Your task to perform on an android device: Open Google Maps Image 0: 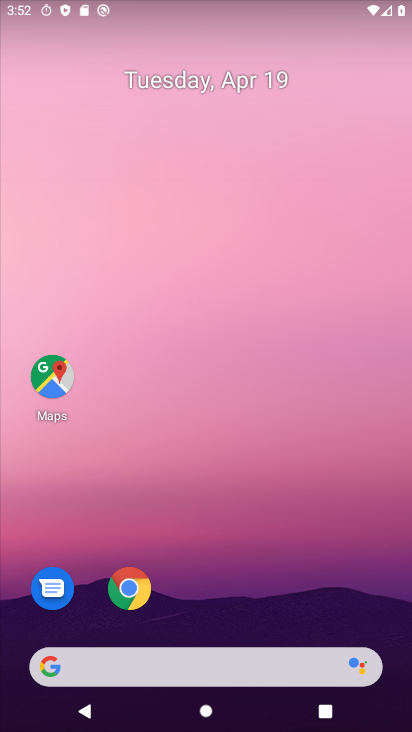
Step 0: click (48, 390)
Your task to perform on an android device: Open Google Maps Image 1: 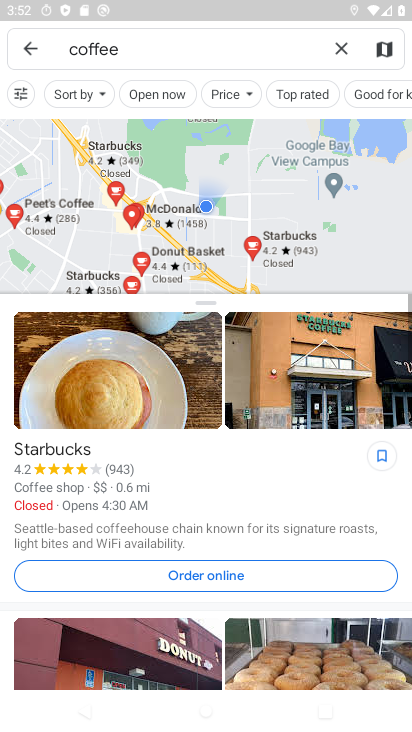
Step 1: task complete